Your task to perform on an android device: check data usage Image 0: 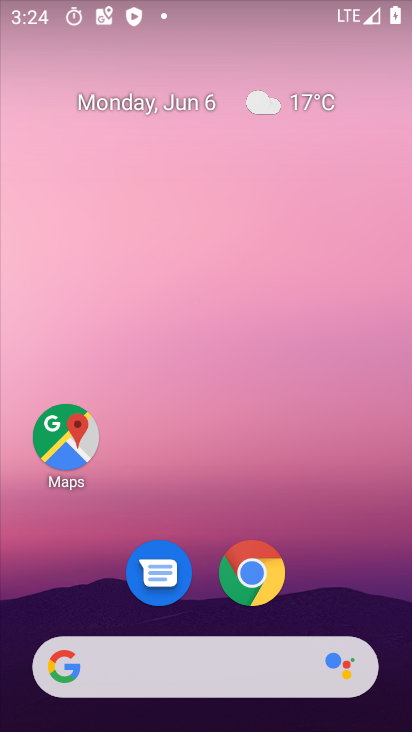
Step 0: drag from (364, 593) to (374, 148)
Your task to perform on an android device: check data usage Image 1: 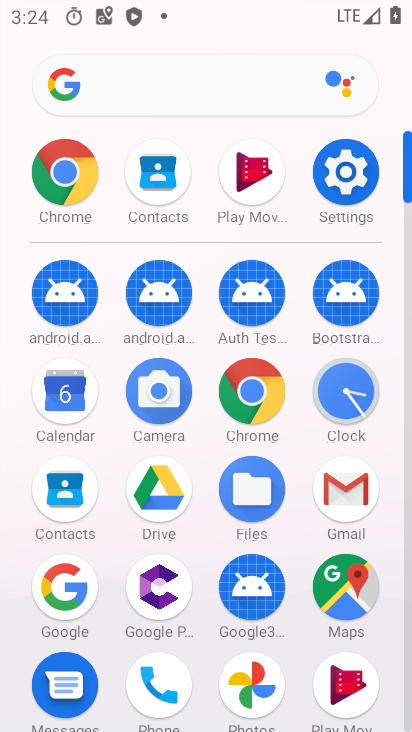
Step 1: click (361, 177)
Your task to perform on an android device: check data usage Image 2: 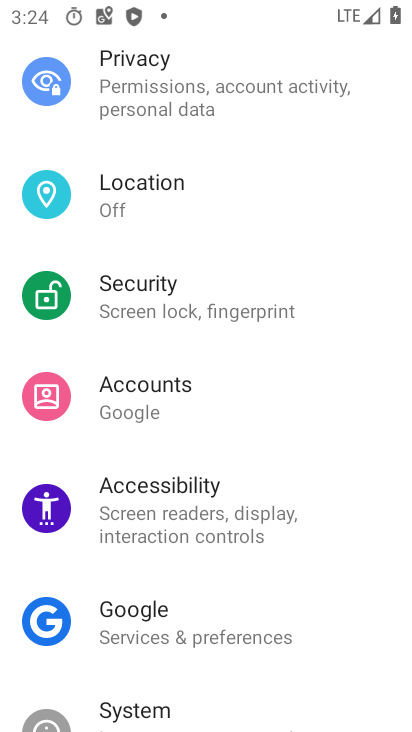
Step 2: drag from (316, 363) to (311, 445)
Your task to perform on an android device: check data usage Image 3: 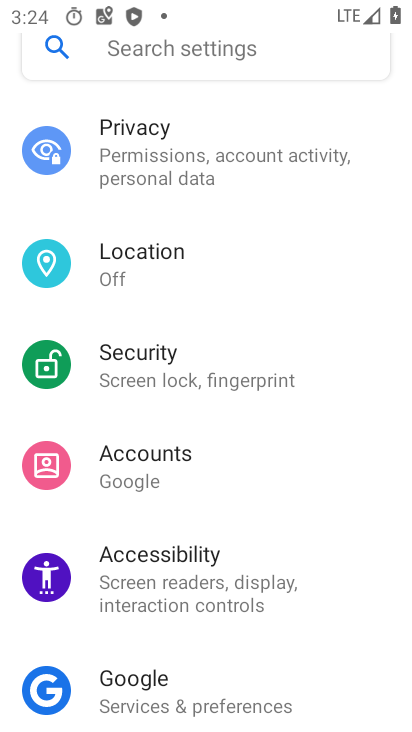
Step 3: drag from (311, 314) to (311, 422)
Your task to perform on an android device: check data usage Image 4: 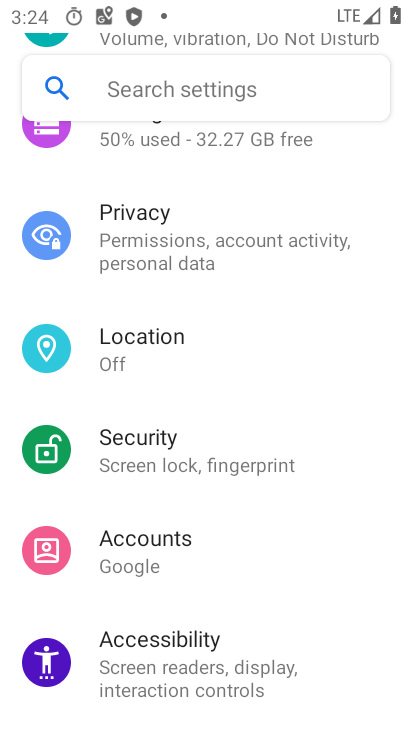
Step 4: drag from (315, 319) to (318, 419)
Your task to perform on an android device: check data usage Image 5: 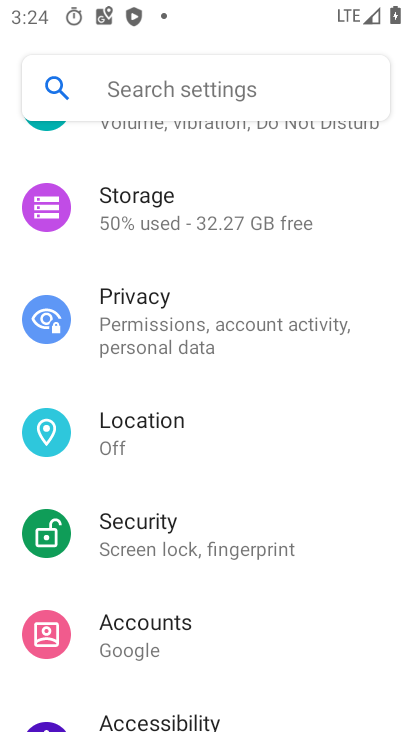
Step 5: drag from (320, 298) to (320, 401)
Your task to perform on an android device: check data usage Image 6: 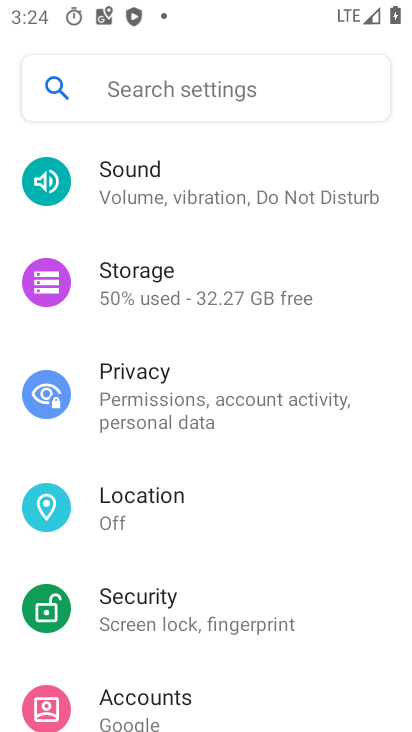
Step 6: drag from (322, 334) to (323, 453)
Your task to perform on an android device: check data usage Image 7: 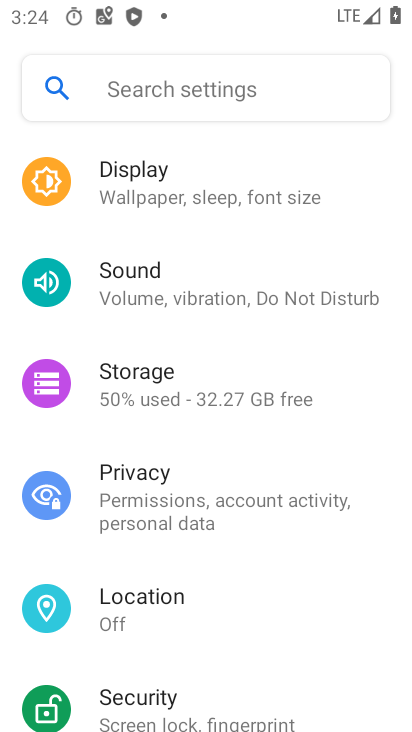
Step 7: drag from (308, 249) to (310, 378)
Your task to perform on an android device: check data usage Image 8: 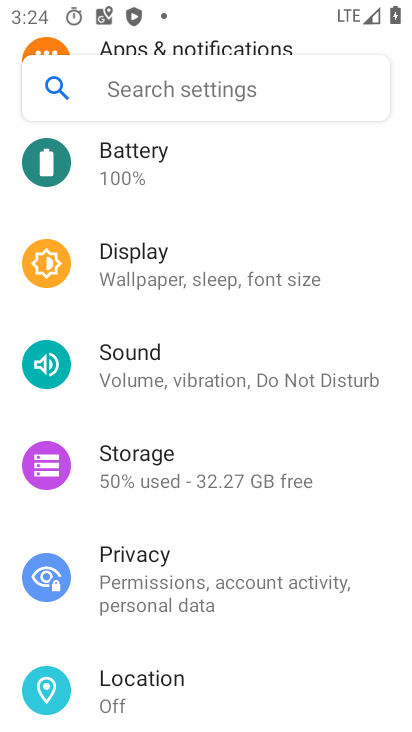
Step 8: drag from (331, 251) to (331, 365)
Your task to perform on an android device: check data usage Image 9: 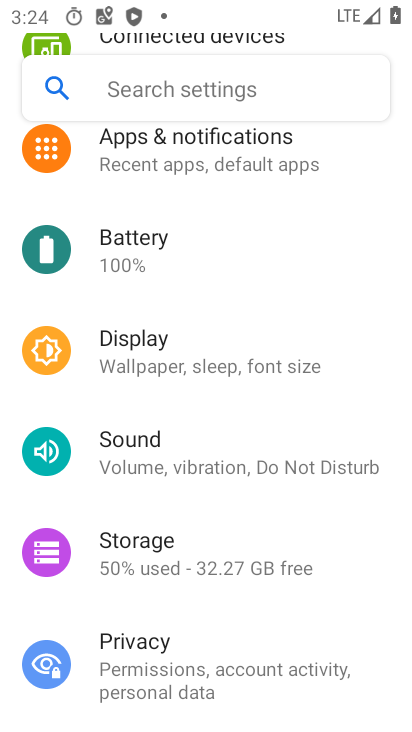
Step 9: drag from (328, 247) to (328, 395)
Your task to perform on an android device: check data usage Image 10: 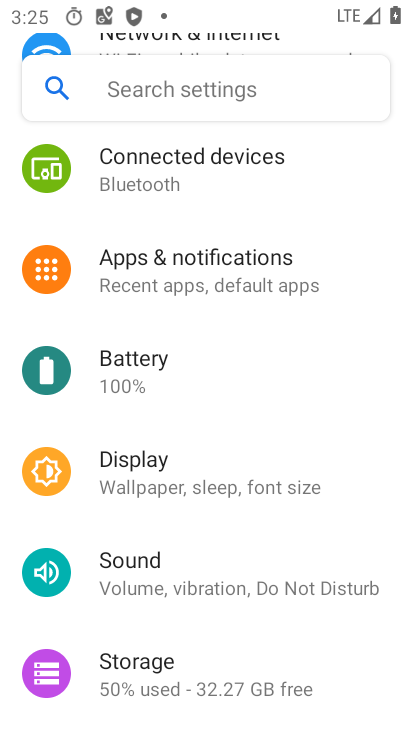
Step 10: drag from (339, 251) to (340, 405)
Your task to perform on an android device: check data usage Image 11: 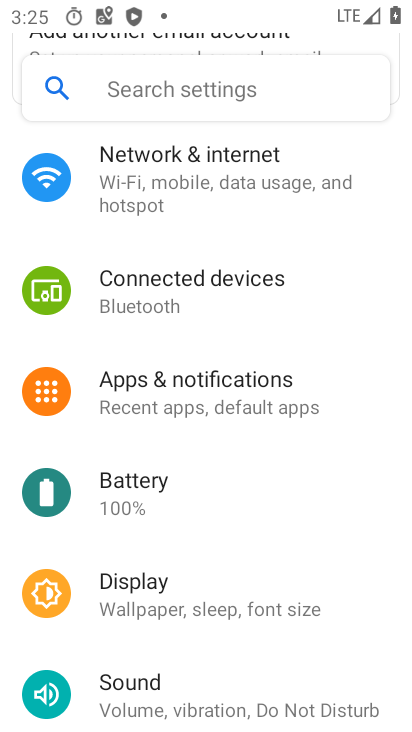
Step 11: drag from (336, 260) to (338, 423)
Your task to perform on an android device: check data usage Image 12: 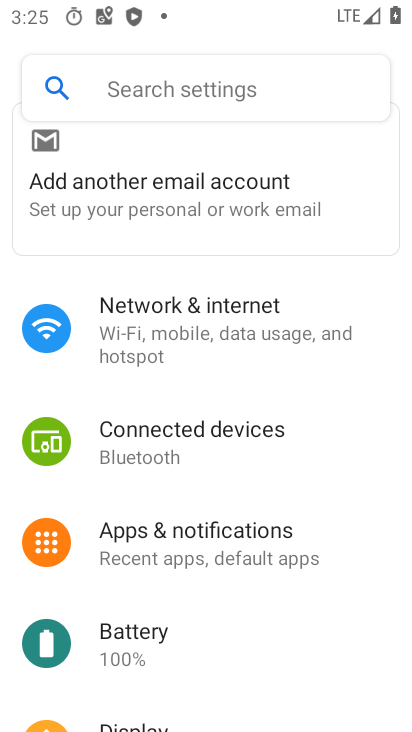
Step 12: drag from (337, 311) to (335, 429)
Your task to perform on an android device: check data usage Image 13: 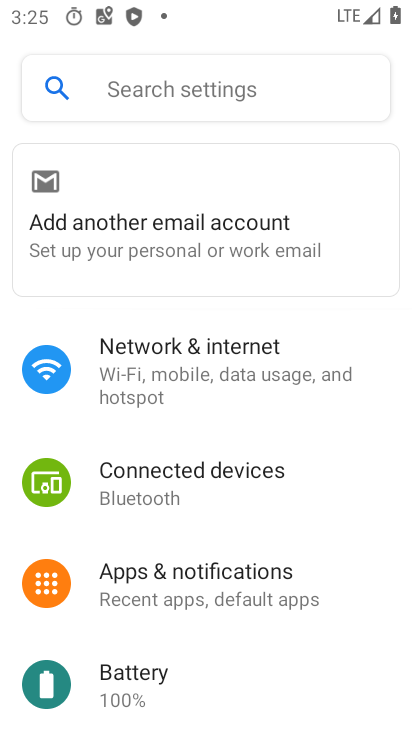
Step 13: click (278, 380)
Your task to perform on an android device: check data usage Image 14: 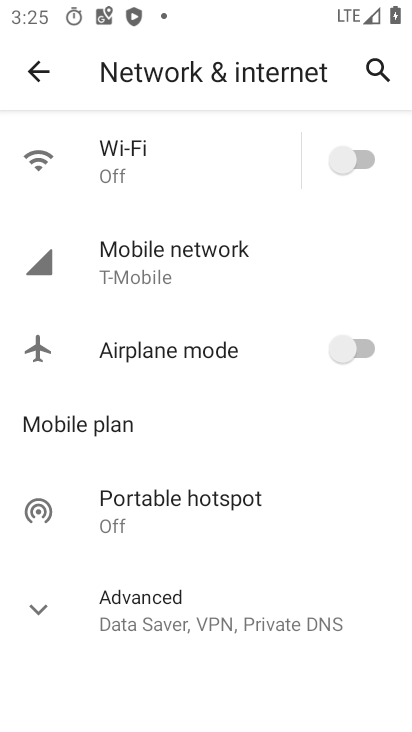
Step 14: click (217, 275)
Your task to perform on an android device: check data usage Image 15: 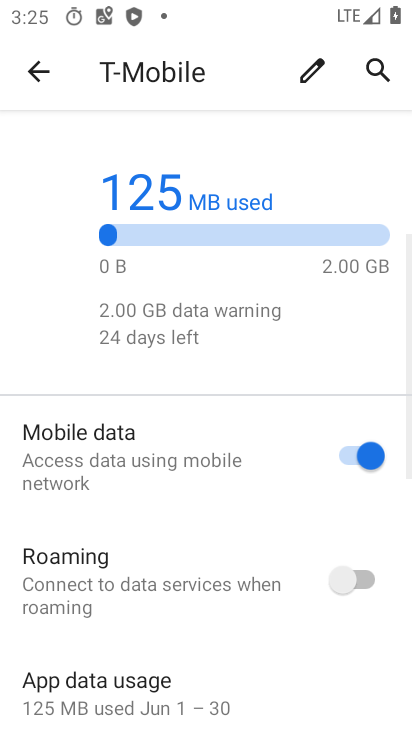
Step 15: drag from (189, 534) to (203, 440)
Your task to perform on an android device: check data usage Image 16: 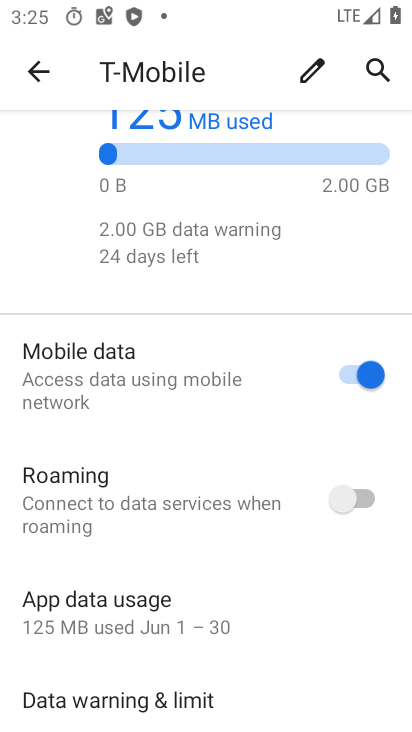
Step 16: drag from (199, 542) to (215, 427)
Your task to perform on an android device: check data usage Image 17: 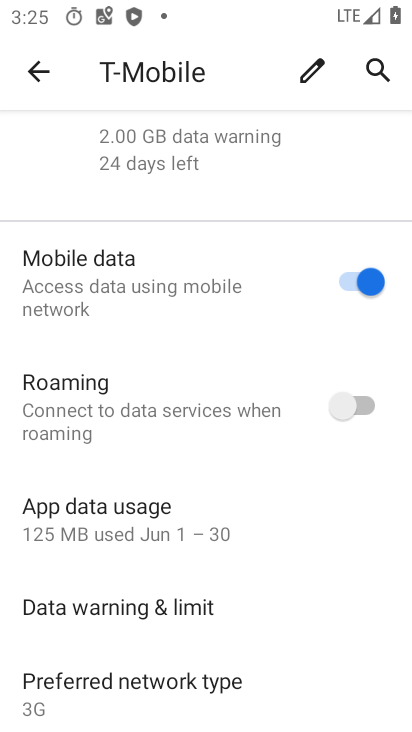
Step 17: drag from (237, 558) to (247, 455)
Your task to perform on an android device: check data usage Image 18: 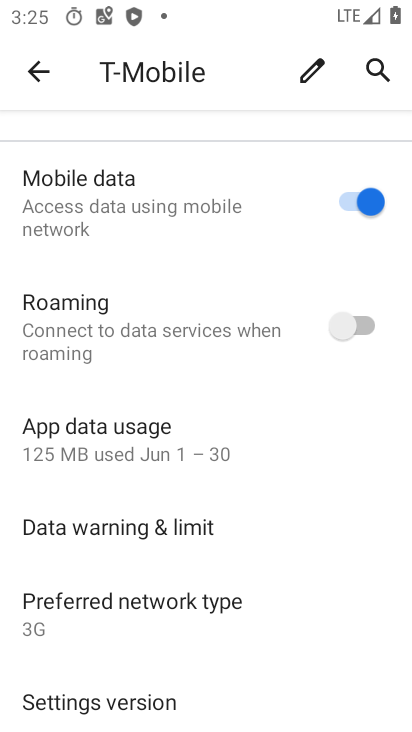
Step 18: click (192, 447)
Your task to perform on an android device: check data usage Image 19: 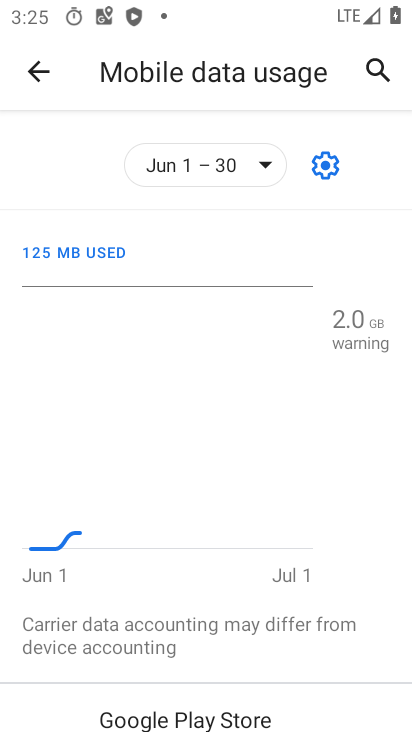
Step 19: task complete